Your task to perform on an android device: Do I have any events today? Image 0: 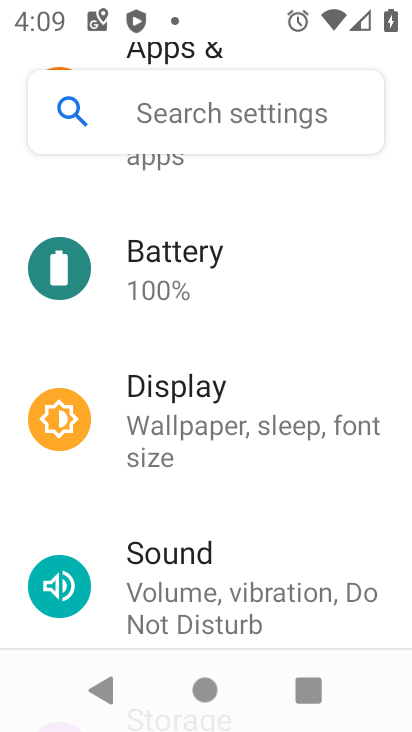
Step 0: press home button
Your task to perform on an android device: Do I have any events today? Image 1: 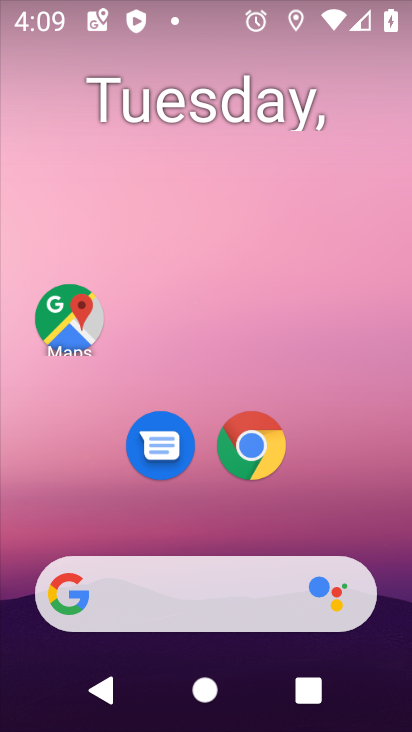
Step 1: drag from (261, 510) to (261, 37)
Your task to perform on an android device: Do I have any events today? Image 2: 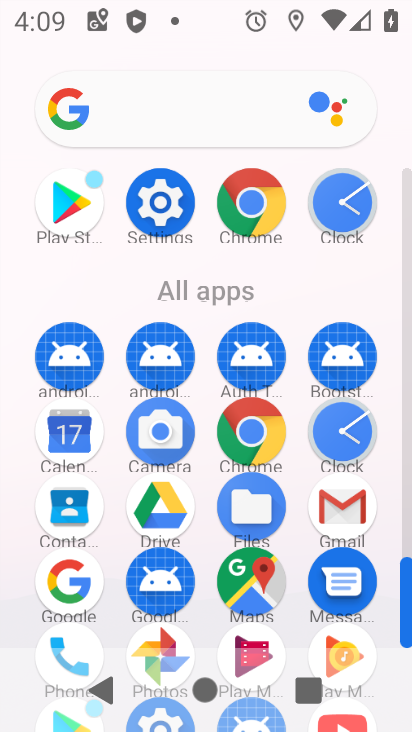
Step 2: click (85, 429)
Your task to perform on an android device: Do I have any events today? Image 3: 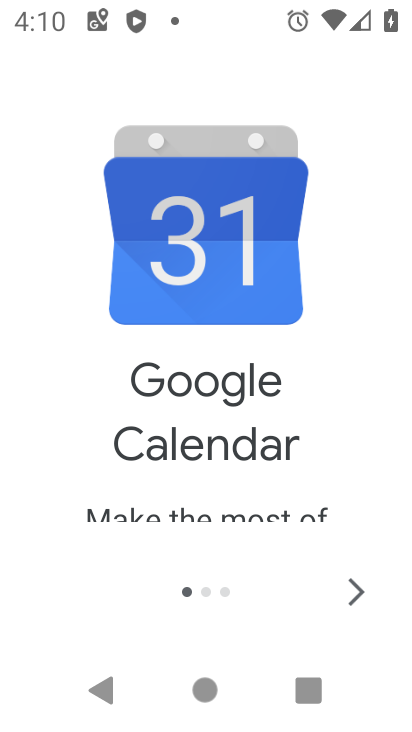
Step 3: click (351, 587)
Your task to perform on an android device: Do I have any events today? Image 4: 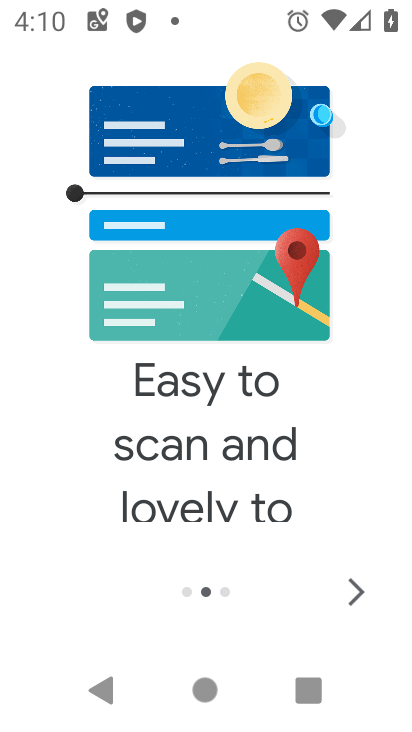
Step 4: click (351, 587)
Your task to perform on an android device: Do I have any events today? Image 5: 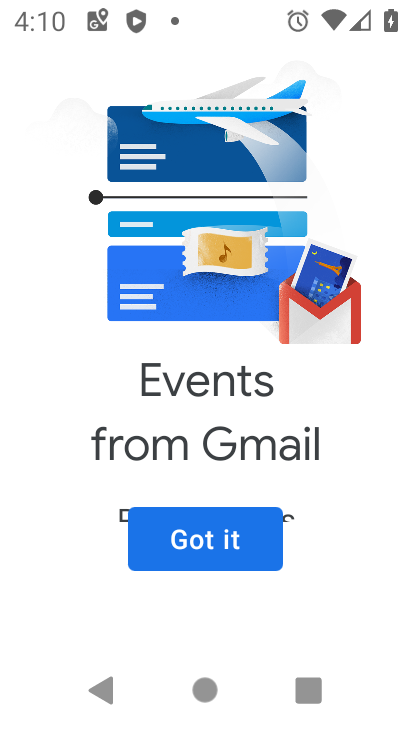
Step 5: click (265, 550)
Your task to perform on an android device: Do I have any events today? Image 6: 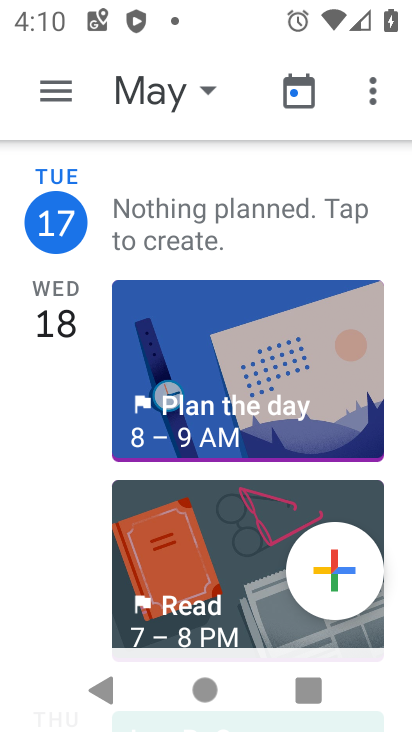
Step 6: click (207, 90)
Your task to perform on an android device: Do I have any events today? Image 7: 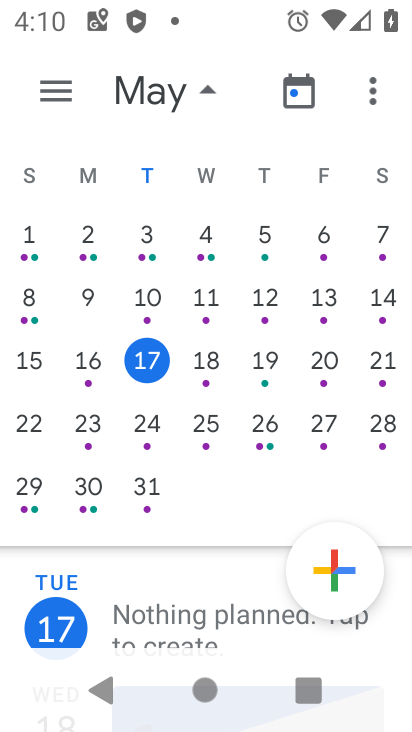
Step 7: click (157, 346)
Your task to perform on an android device: Do I have any events today? Image 8: 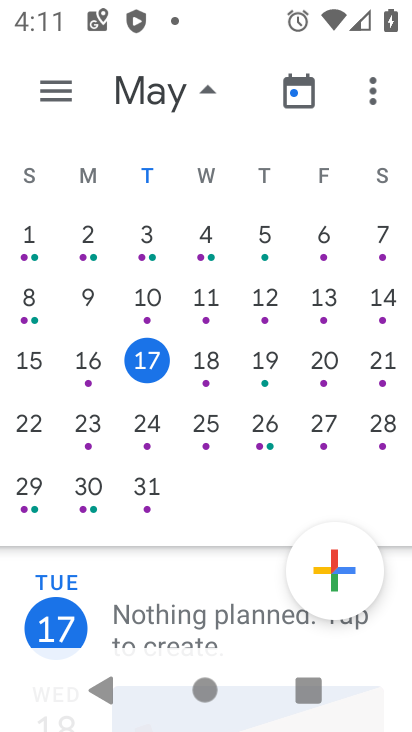
Step 8: task complete